Your task to perform on an android device: turn on showing notifications on the lock screen Image 0: 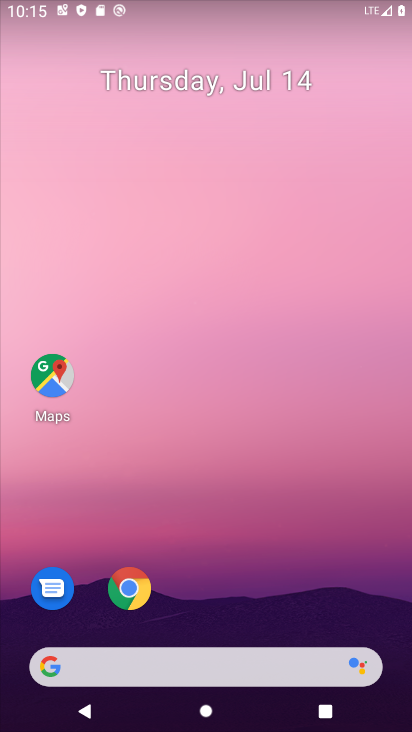
Step 0: drag from (345, 570) to (209, 6)
Your task to perform on an android device: turn on showing notifications on the lock screen Image 1: 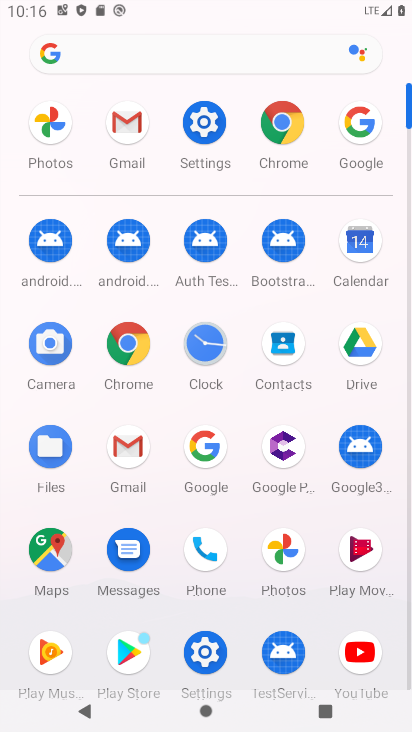
Step 1: click (199, 138)
Your task to perform on an android device: turn on showing notifications on the lock screen Image 2: 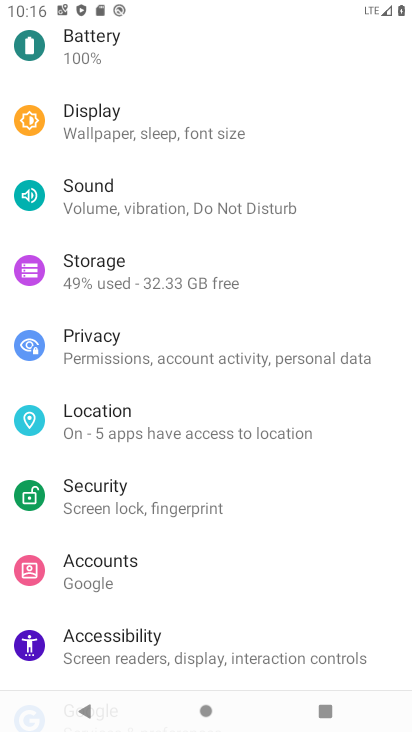
Step 2: drag from (179, 90) to (211, 650)
Your task to perform on an android device: turn on showing notifications on the lock screen Image 3: 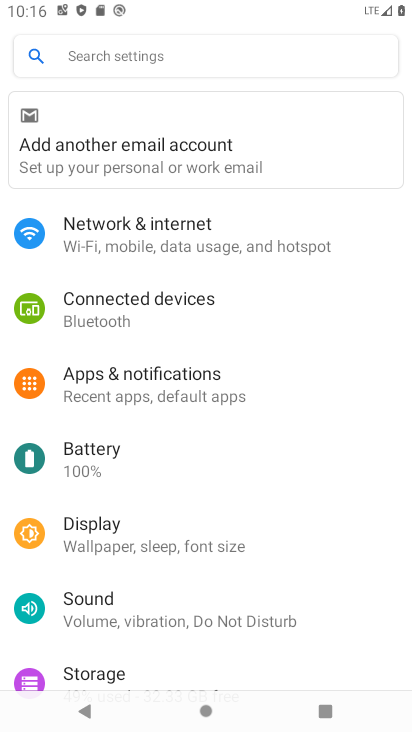
Step 3: click (204, 383)
Your task to perform on an android device: turn on showing notifications on the lock screen Image 4: 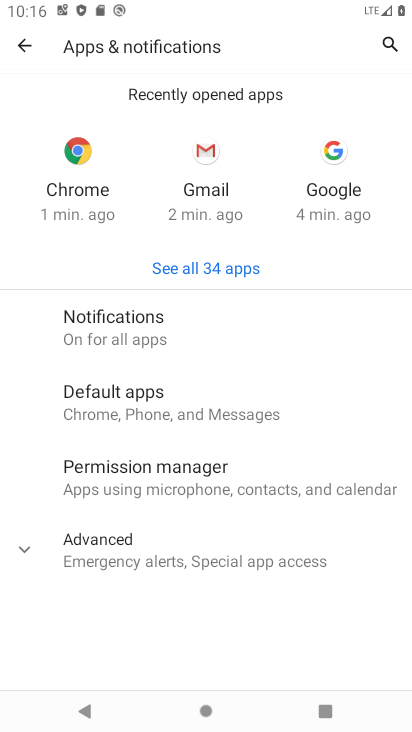
Step 4: click (141, 330)
Your task to perform on an android device: turn on showing notifications on the lock screen Image 5: 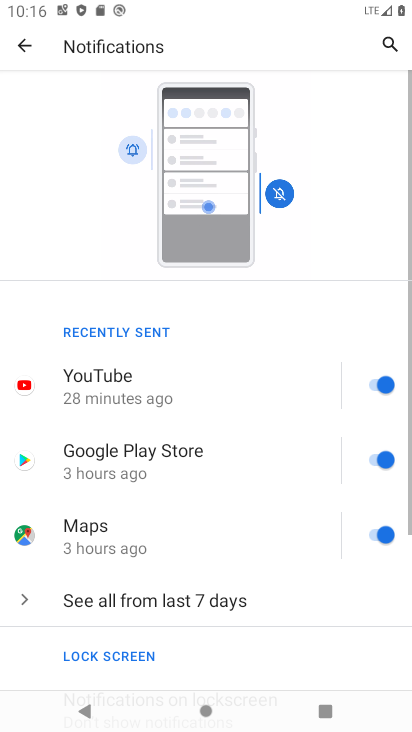
Step 5: drag from (180, 611) to (204, 134)
Your task to perform on an android device: turn on showing notifications on the lock screen Image 6: 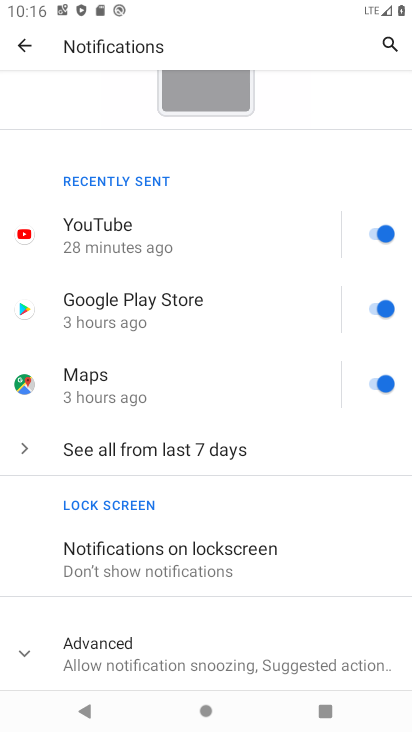
Step 6: click (198, 552)
Your task to perform on an android device: turn on showing notifications on the lock screen Image 7: 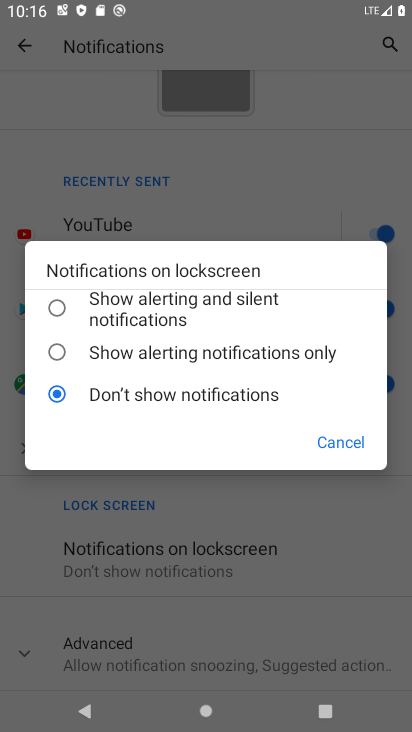
Step 7: click (58, 301)
Your task to perform on an android device: turn on showing notifications on the lock screen Image 8: 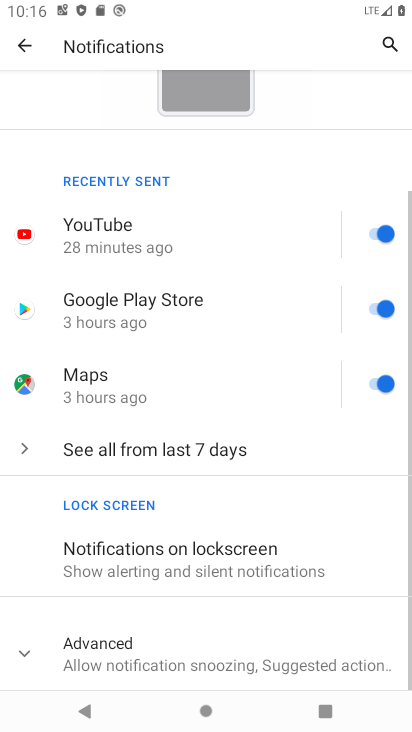
Step 8: task complete